Your task to perform on an android device: Go to internet settings Image 0: 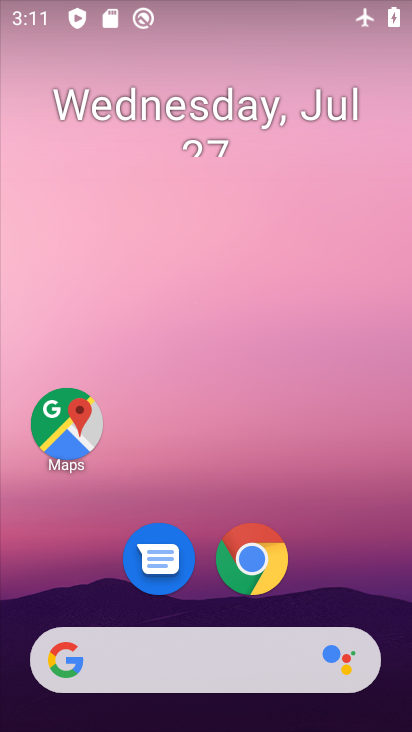
Step 0: drag from (99, 579) to (245, 6)
Your task to perform on an android device: Go to internet settings Image 1: 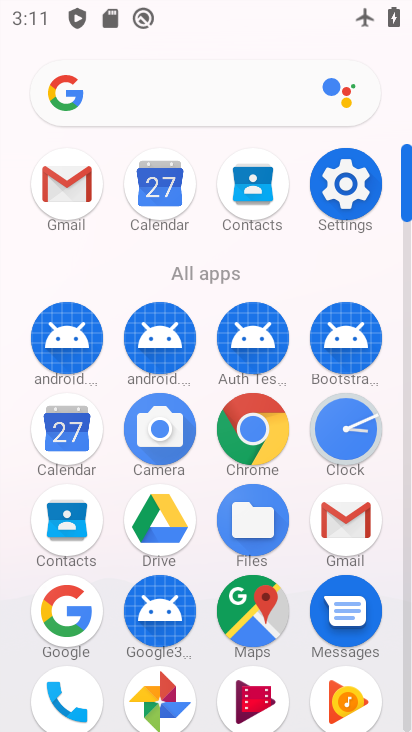
Step 1: click (362, 178)
Your task to perform on an android device: Go to internet settings Image 2: 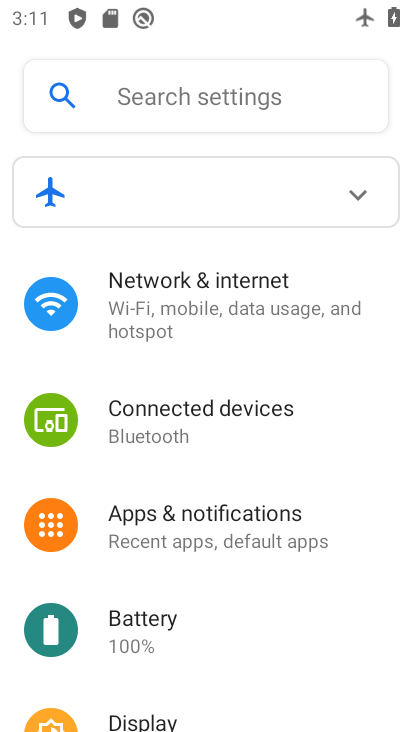
Step 2: click (177, 318)
Your task to perform on an android device: Go to internet settings Image 3: 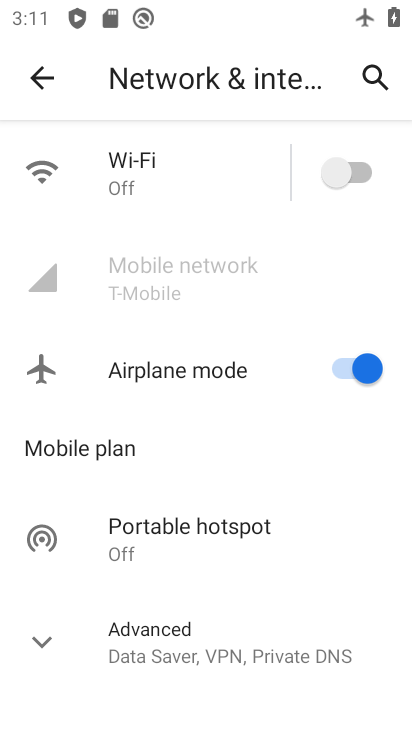
Step 3: task complete